Your task to perform on an android device: Open the map Image 0: 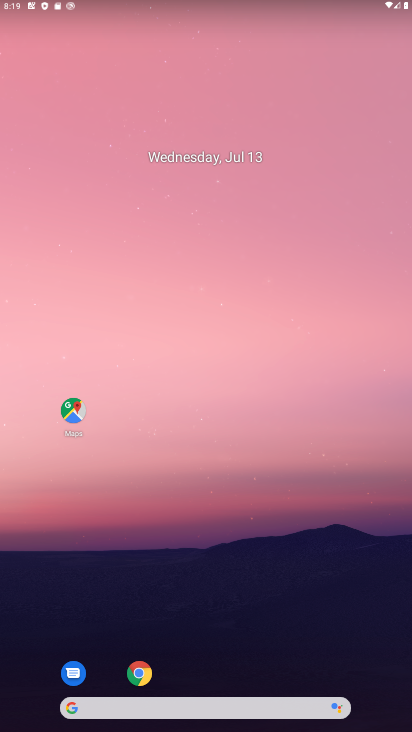
Step 0: click (75, 407)
Your task to perform on an android device: Open the map Image 1: 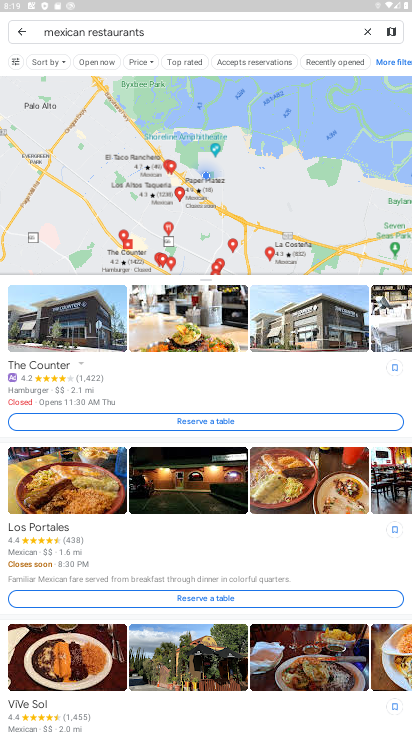
Step 1: task complete